Your task to perform on an android device: search for starred emails in the gmail app Image 0: 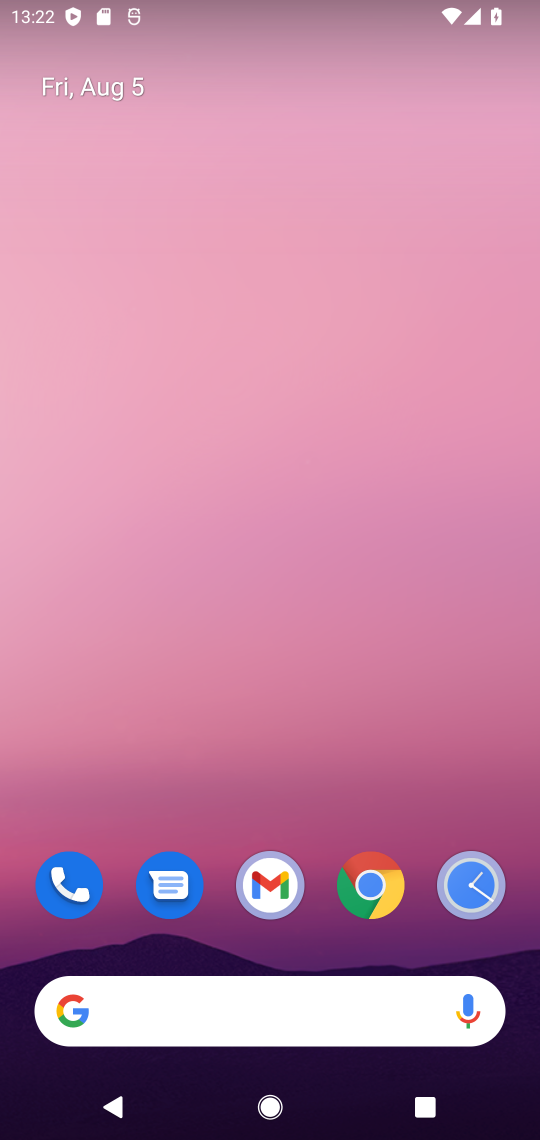
Step 0: click (275, 901)
Your task to perform on an android device: search for starred emails in the gmail app Image 1: 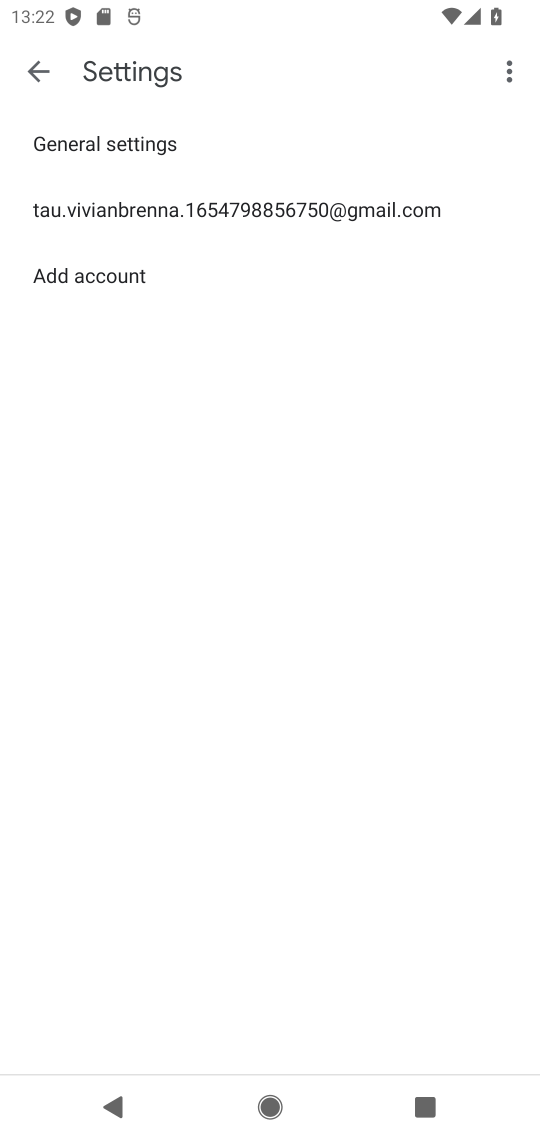
Step 1: click (30, 77)
Your task to perform on an android device: search for starred emails in the gmail app Image 2: 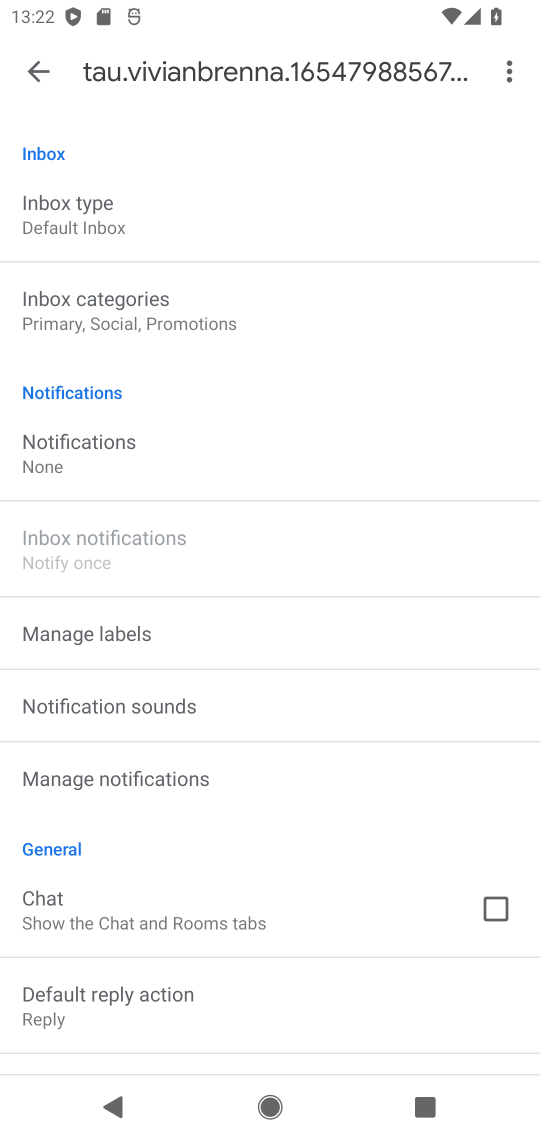
Step 2: click (42, 73)
Your task to perform on an android device: search for starred emails in the gmail app Image 3: 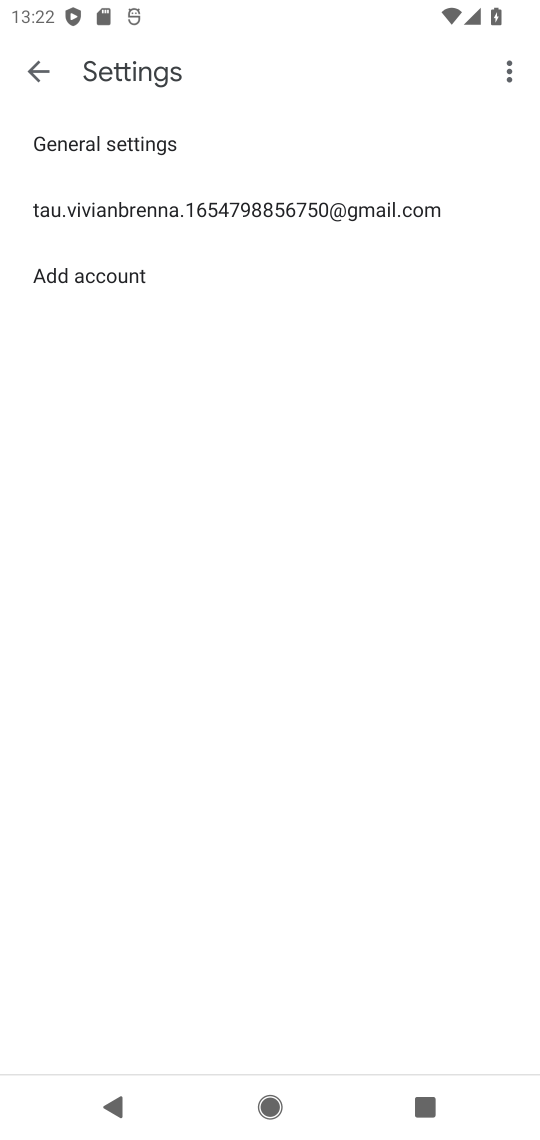
Step 3: click (42, 73)
Your task to perform on an android device: search for starred emails in the gmail app Image 4: 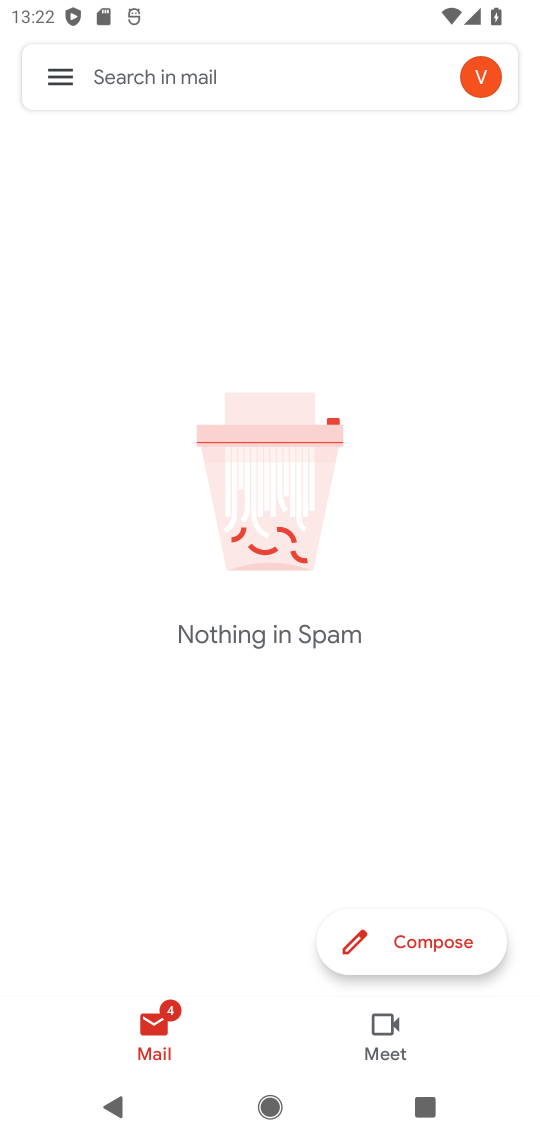
Step 4: click (52, 73)
Your task to perform on an android device: search for starred emails in the gmail app Image 5: 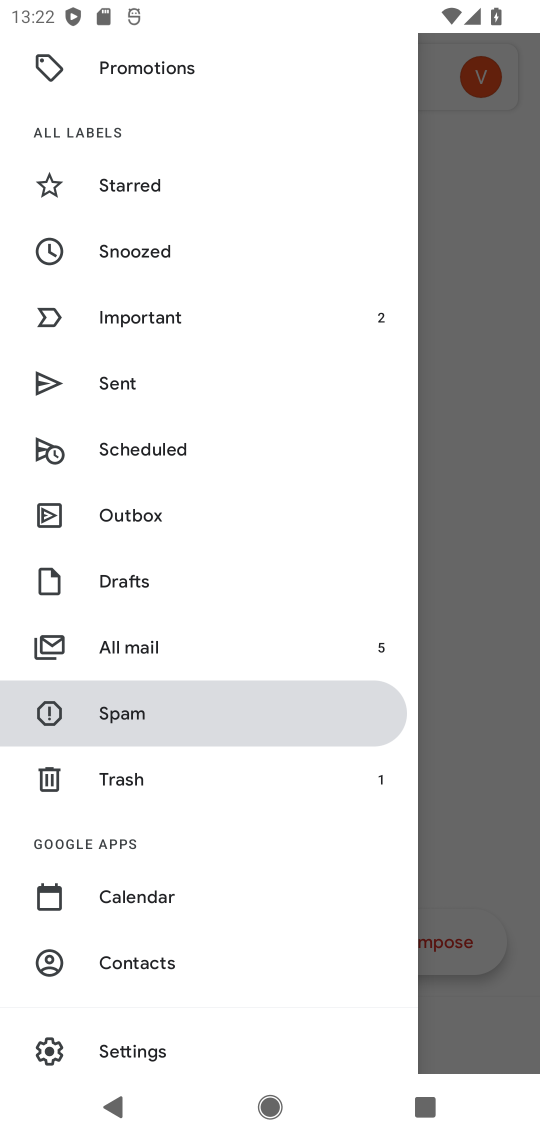
Step 5: click (124, 182)
Your task to perform on an android device: search for starred emails in the gmail app Image 6: 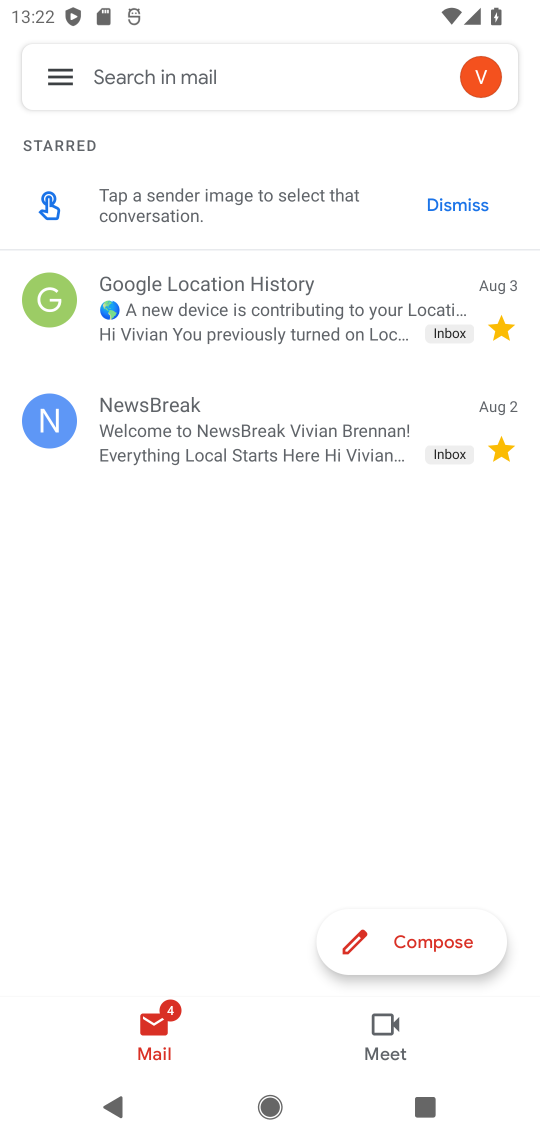
Step 6: task complete